Your task to perform on an android device: empty trash in the gmail app Image 0: 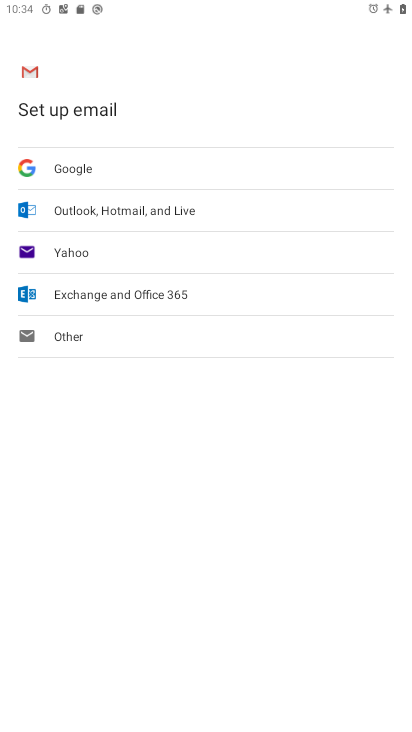
Step 0: press home button
Your task to perform on an android device: empty trash in the gmail app Image 1: 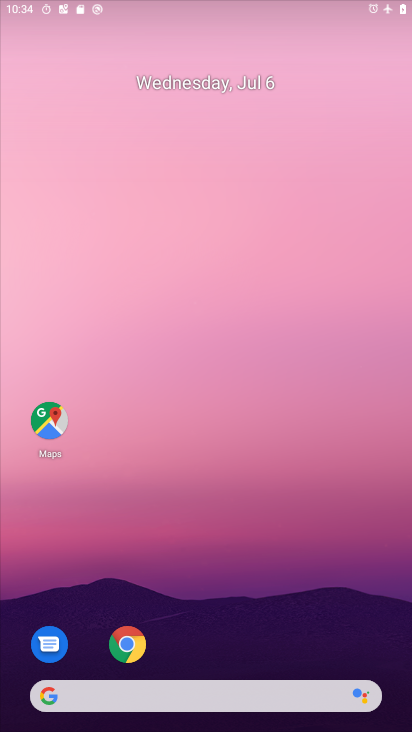
Step 1: drag from (260, 517) to (308, 98)
Your task to perform on an android device: empty trash in the gmail app Image 2: 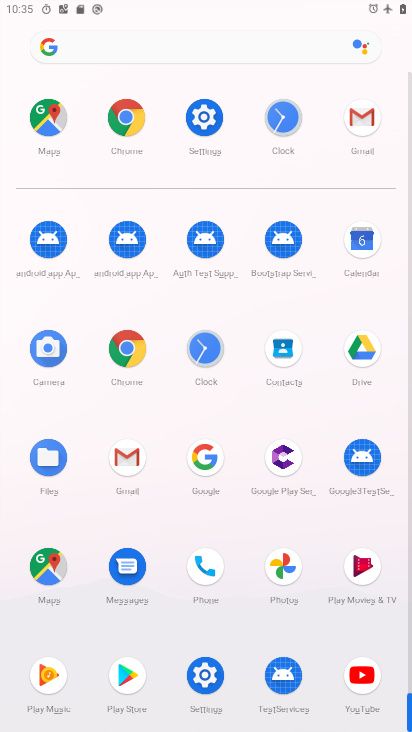
Step 2: click (120, 471)
Your task to perform on an android device: empty trash in the gmail app Image 3: 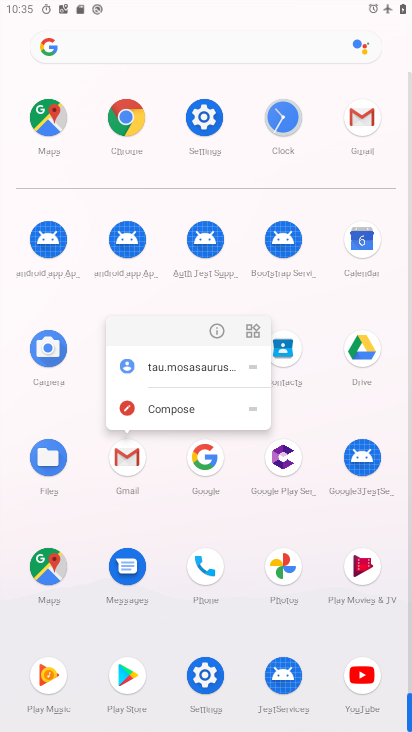
Step 3: click (357, 131)
Your task to perform on an android device: empty trash in the gmail app Image 4: 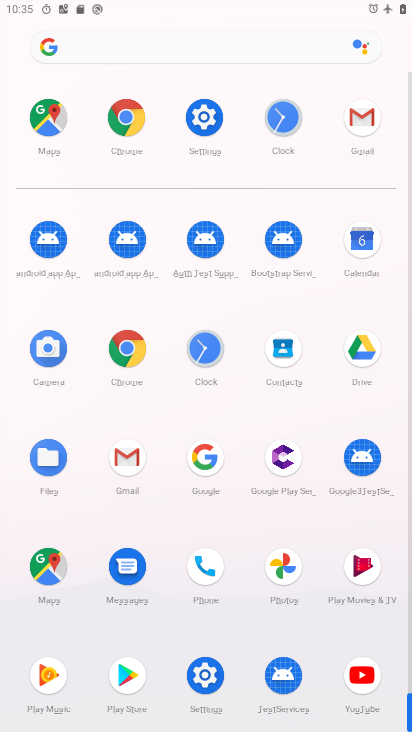
Step 4: click (356, 129)
Your task to perform on an android device: empty trash in the gmail app Image 5: 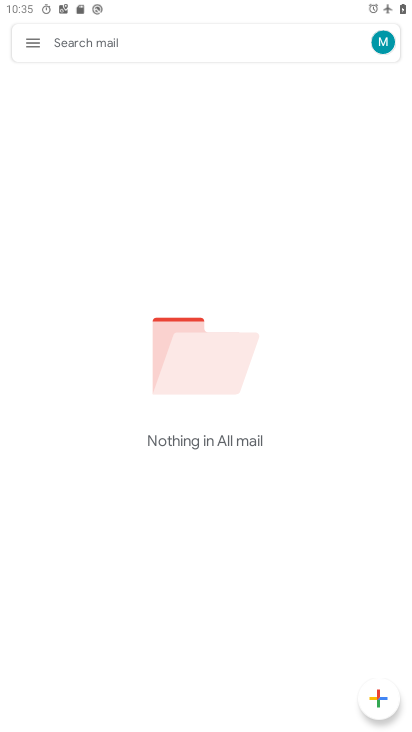
Step 5: click (28, 39)
Your task to perform on an android device: empty trash in the gmail app Image 6: 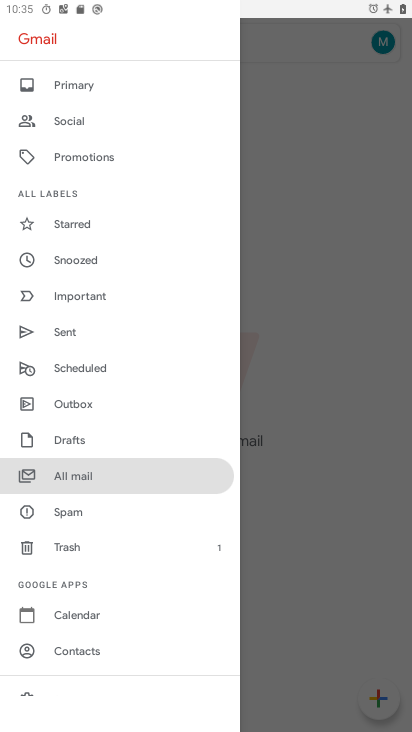
Step 6: click (93, 545)
Your task to perform on an android device: empty trash in the gmail app Image 7: 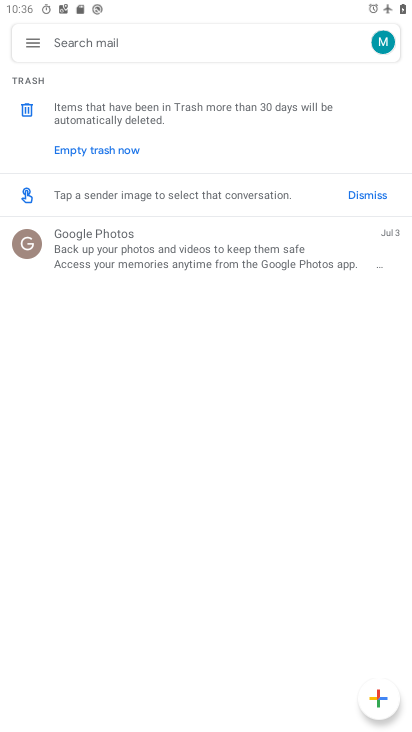
Step 7: click (91, 145)
Your task to perform on an android device: empty trash in the gmail app Image 8: 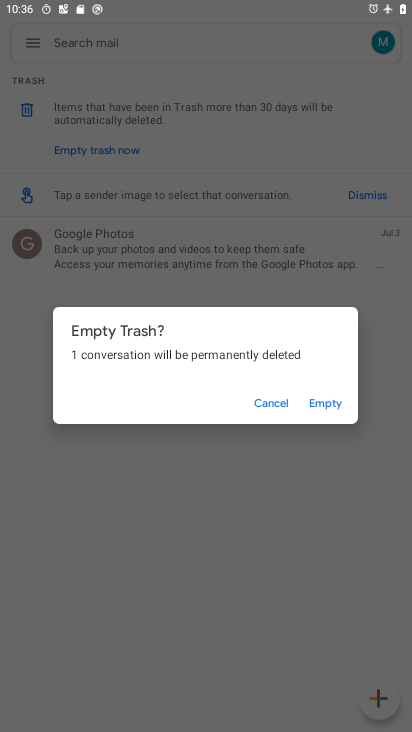
Step 8: click (323, 403)
Your task to perform on an android device: empty trash in the gmail app Image 9: 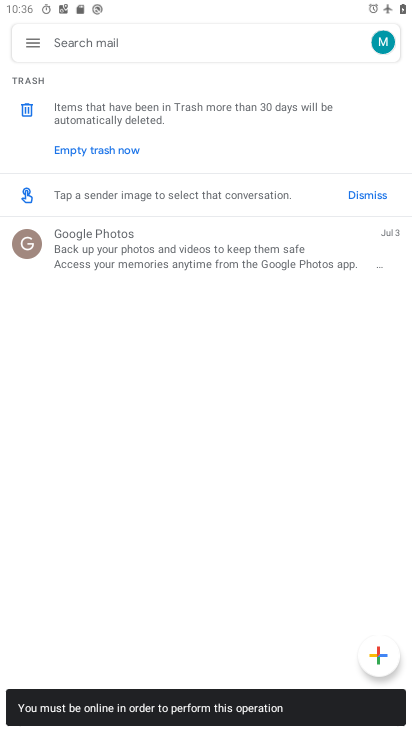
Step 9: task complete